Your task to perform on an android device: toggle data saver in the chrome app Image 0: 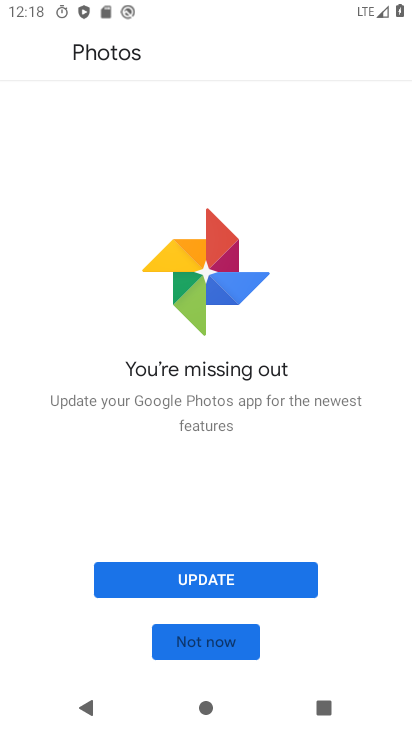
Step 0: press home button
Your task to perform on an android device: toggle data saver in the chrome app Image 1: 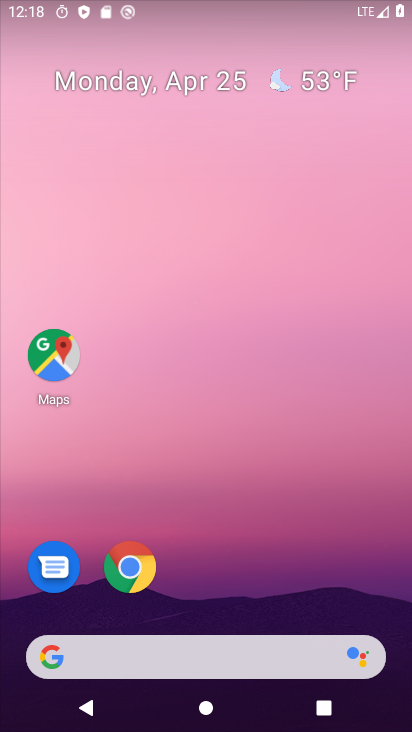
Step 1: click (136, 568)
Your task to perform on an android device: toggle data saver in the chrome app Image 2: 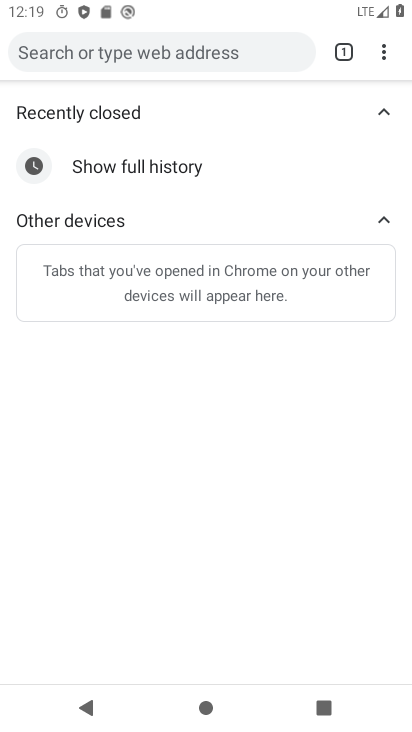
Step 2: click (380, 49)
Your task to perform on an android device: toggle data saver in the chrome app Image 3: 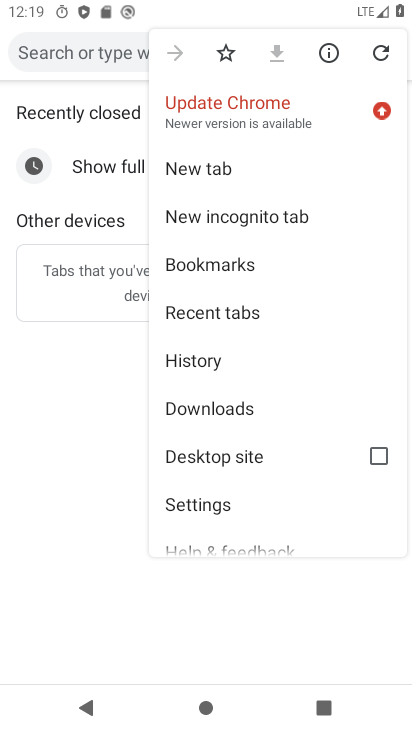
Step 3: click (234, 502)
Your task to perform on an android device: toggle data saver in the chrome app Image 4: 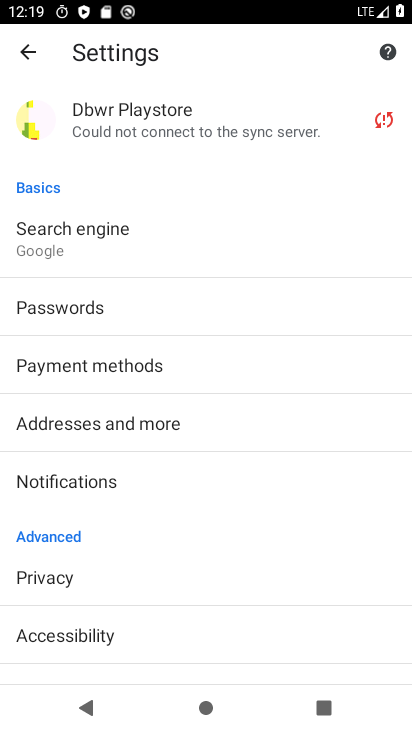
Step 4: drag from (234, 501) to (221, 179)
Your task to perform on an android device: toggle data saver in the chrome app Image 5: 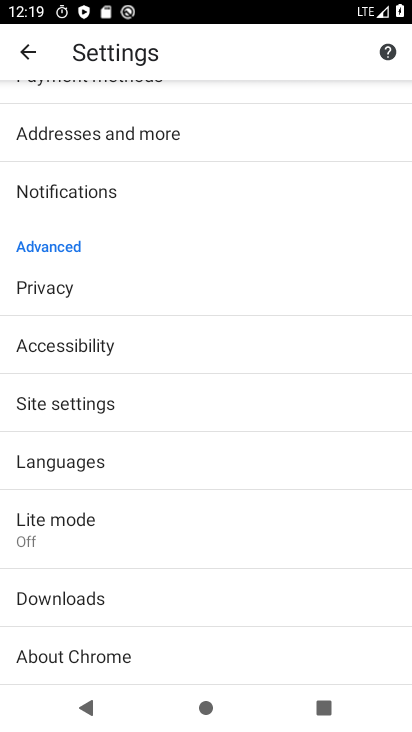
Step 5: click (193, 524)
Your task to perform on an android device: toggle data saver in the chrome app Image 6: 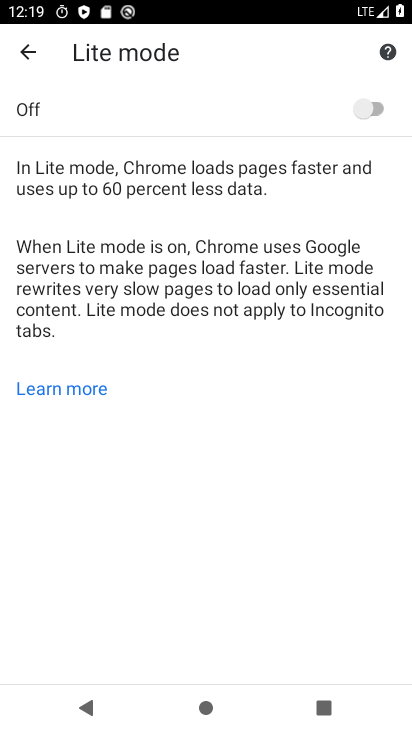
Step 6: click (368, 103)
Your task to perform on an android device: toggle data saver in the chrome app Image 7: 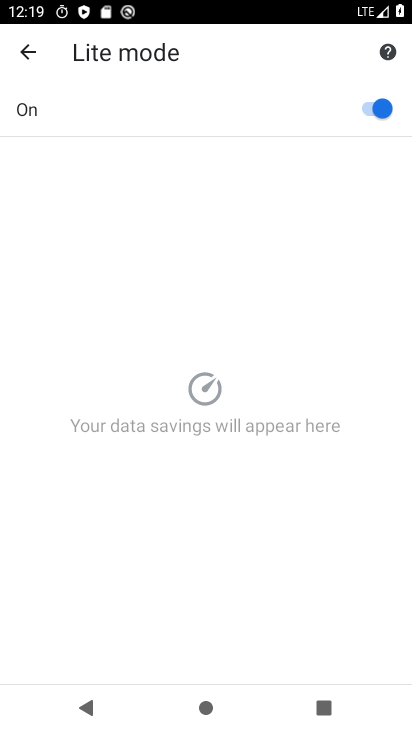
Step 7: task complete